Your task to perform on an android device: Go to Android settings Image 0: 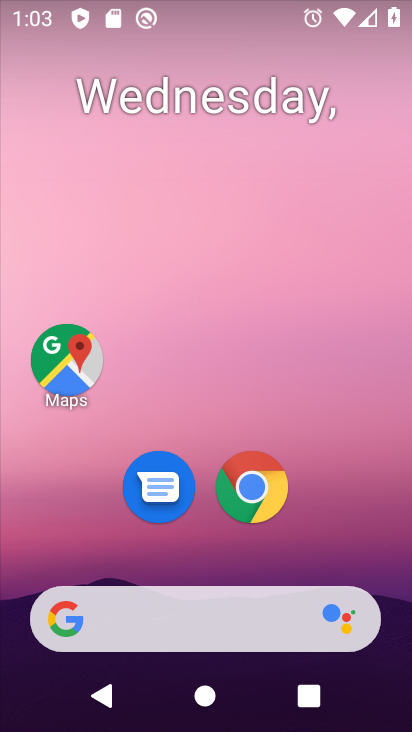
Step 0: drag from (361, 573) to (294, 163)
Your task to perform on an android device: Go to Android settings Image 1: 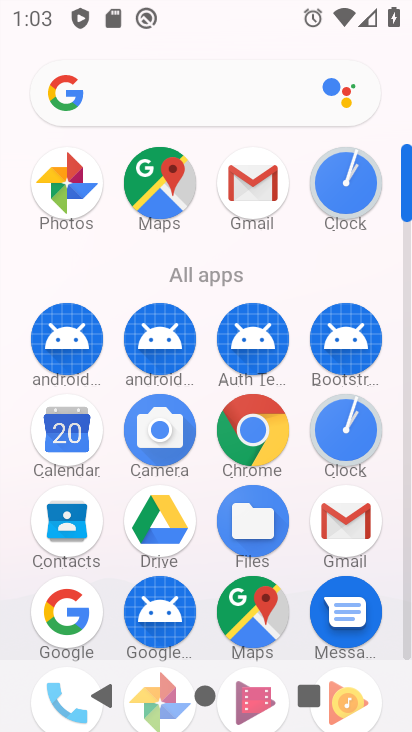
Step 1: click (408, 653)
Your task to perform on an android device: Go to Android settings Image 2: 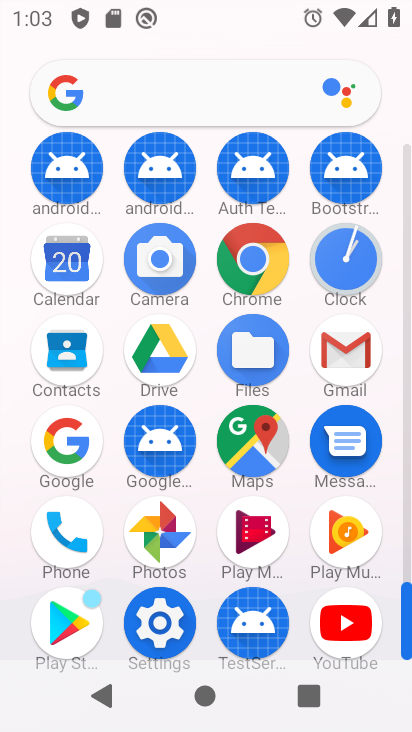
Step 2: click (174, 600)
Your task to perform on an android device: Go to Android settings Image 3: 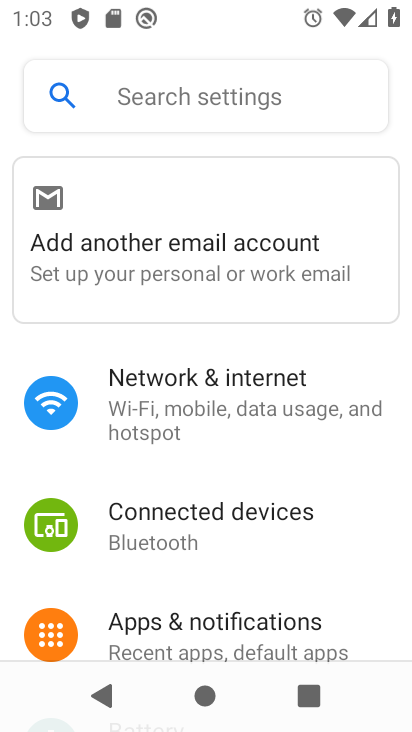
Step 3: drag from (294, 582) to (270, 21)
Your task to perform on an android device: Go to Android settings Image 4: 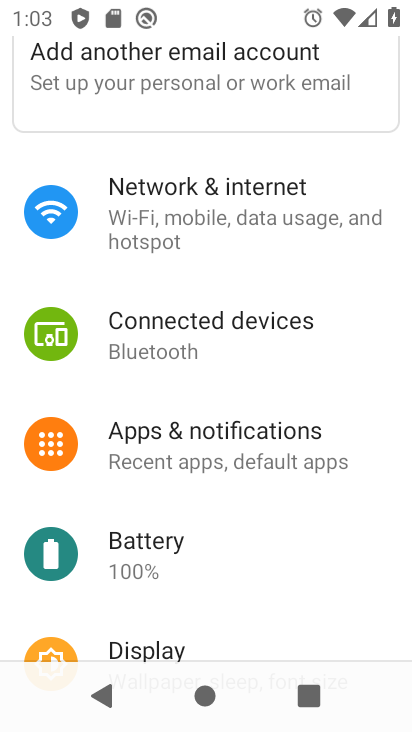
Step 4: drag from (271, 610) to (274, 167)
Your task to perform on an android device: Go to Android settings Image 5: 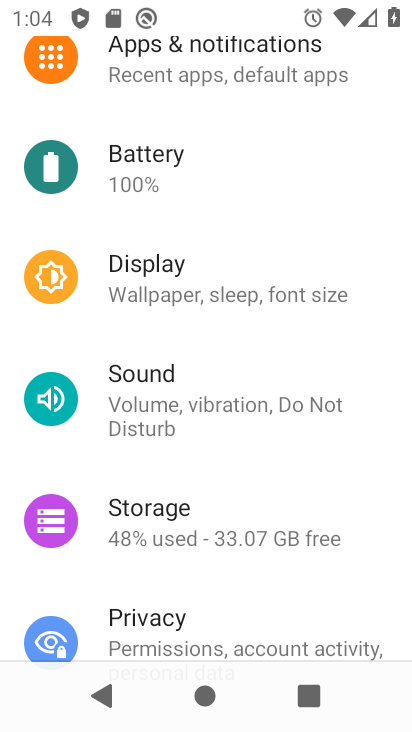
Step 5: drag from (273, 594) to (283, 139)
Your task to perform on an android device: Go to Android settings Image 6: 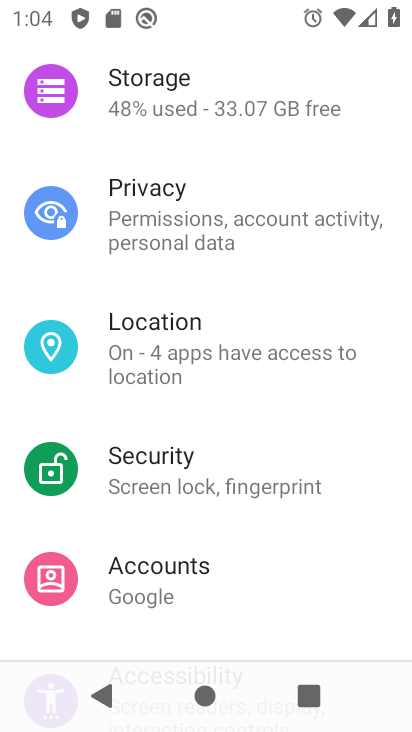
Step 6: drag from (261, 508) to (258, 164)
Your task to perform on an android device: Go to Android settings Image 7: 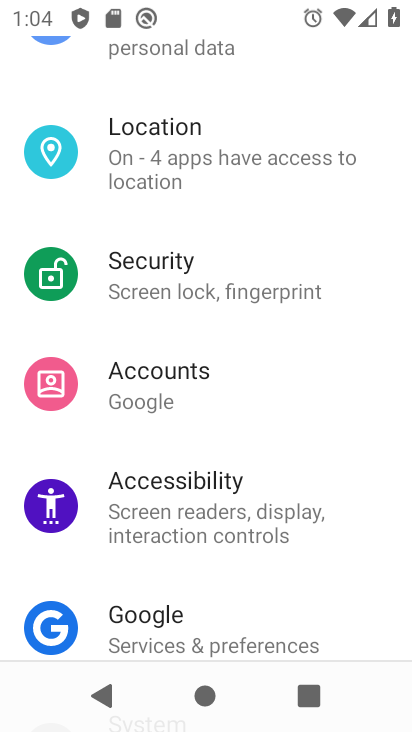
Step 7: drag from (251, 583) to (214, 79)
Your task to perform on an android device: Go to Android settings Image 8: 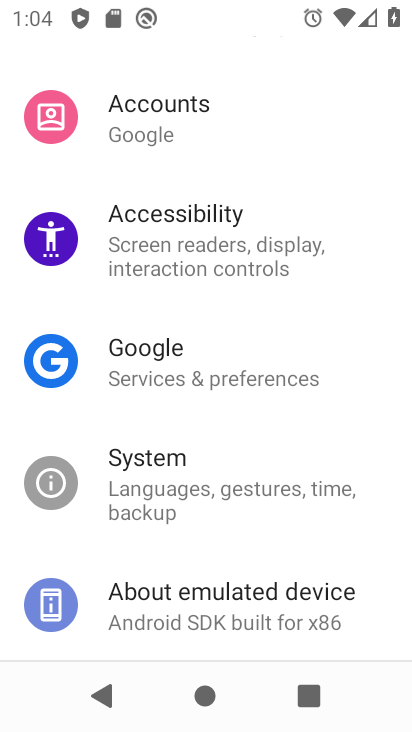
Step 8: click (265, 612)
Your task to perform on an android device: Go to Android settings Image 9: 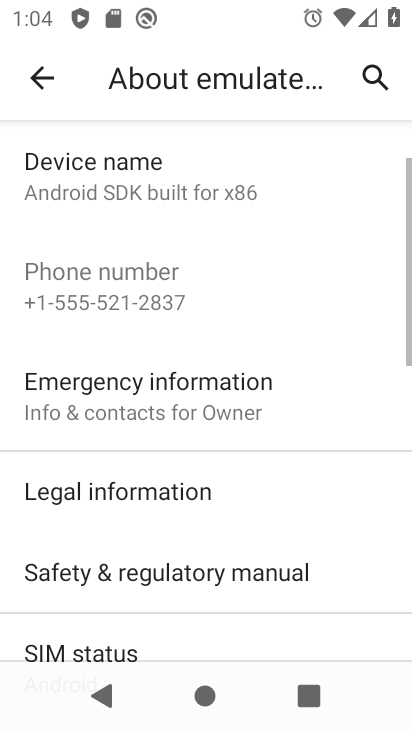
Step 9: drag from (333, 608) to (321, 266)
Your task to perform on an android device: Go to Android settings Image 10: 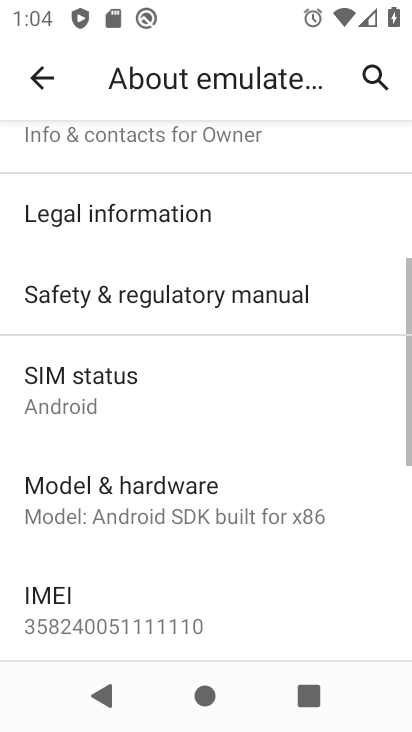
Step 10: drag from (302, 482) to (292, 215)
Your task to perform on an android device: Go to Android settings Image 11: 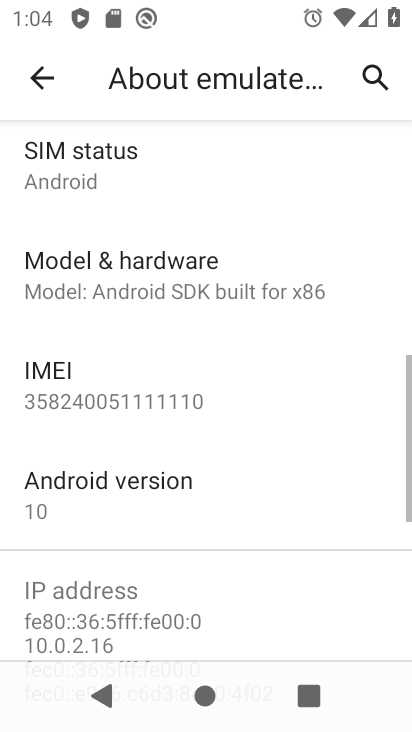
Step 11: click (270, 501)
Your task to perform on an android device: Go to Android settings Image 12: 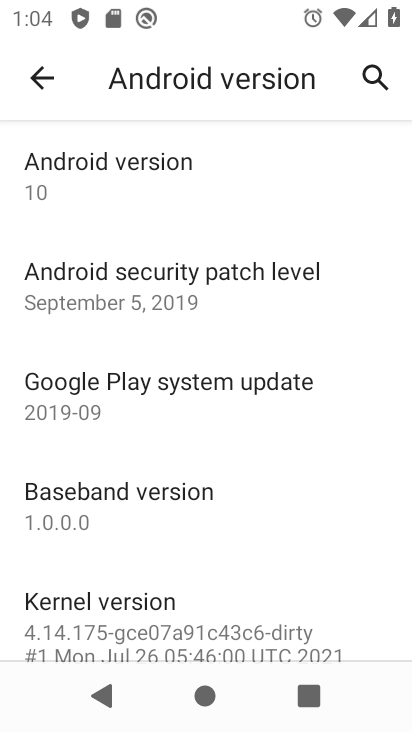
Step 12: task complete